Your task to perform on an android device: Open the web browser Image 0: 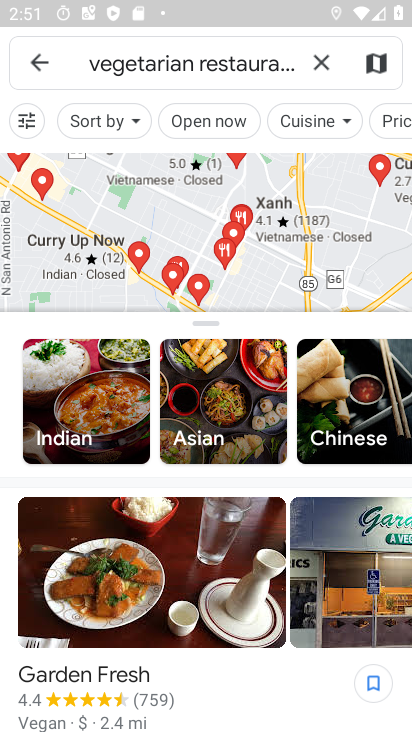
Step 0: press home button
Your task to perform on an android device: Open the web browser Image 1: 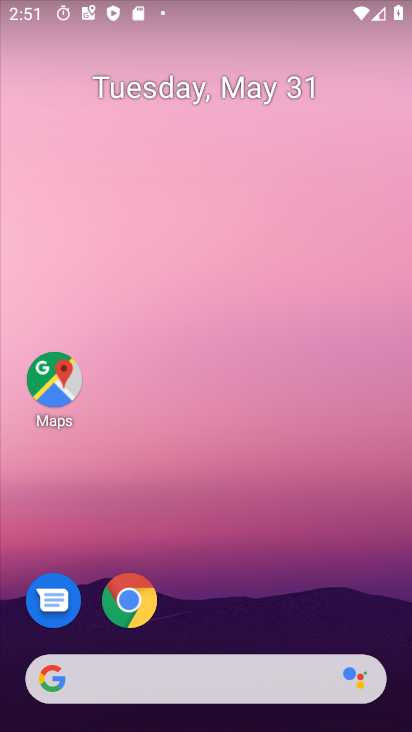
Step 1: drag from (244, 344) to (283, 59)
Your task to perform on an android device: Open the web browser Image 2: 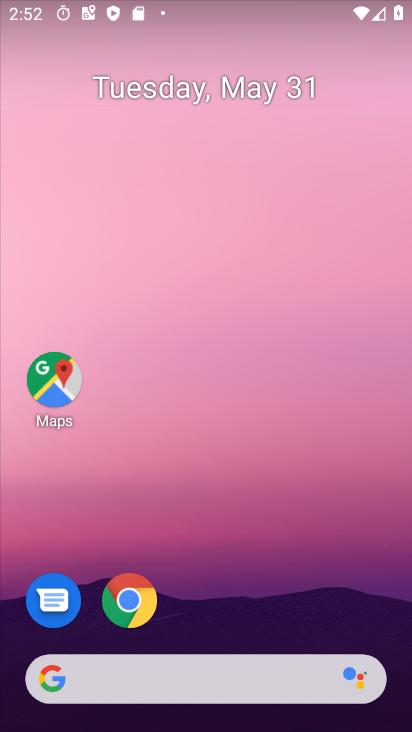
Step 2: click (124, 598)
Your task to perform on an android device: Open the web browser Image 3: 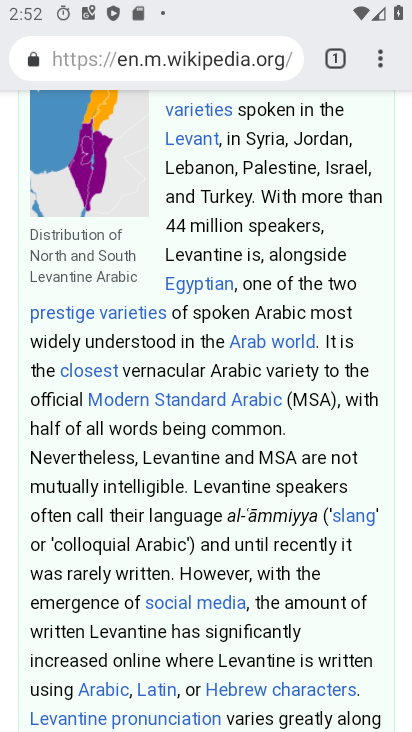
Step 3: click (342, 58)
Your task to perform on an android device: Open the web browser Image 4: 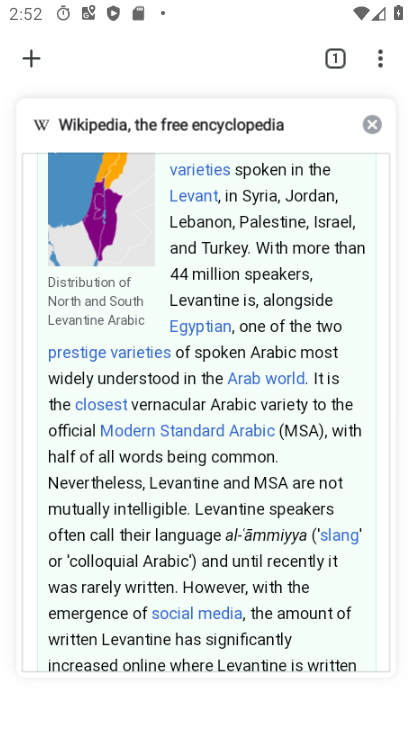
Step 4: click (368, 122)
Your task to perform on an android device: Open the web browser Image 5: 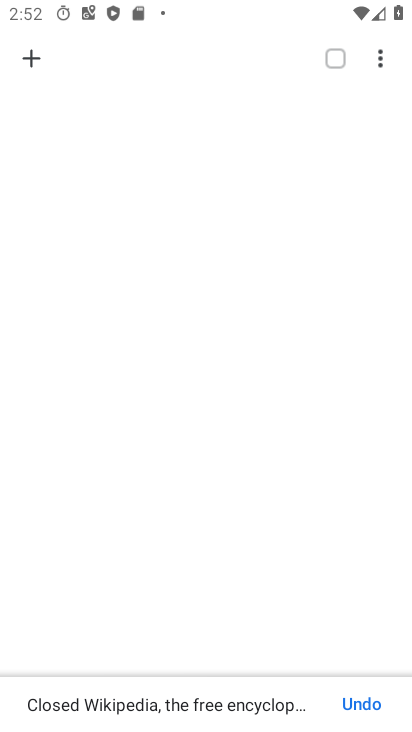
Step 5: click (41, 57)
Your task to perform on an android device: Open the web browser Image 6: 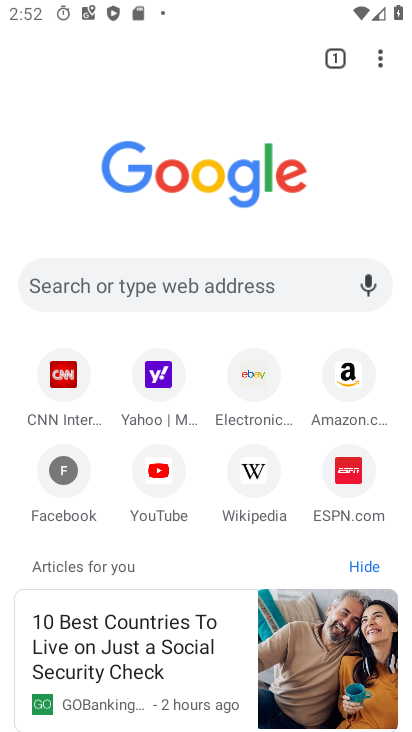
Step 6: task complete